Your task to perform on an android device: check storage Image 0: 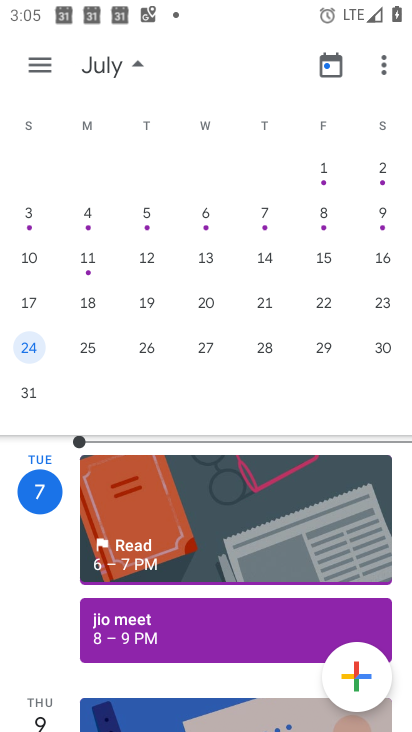
Step 0: press home button
Your task to perform on an android device: check storage Image 1: 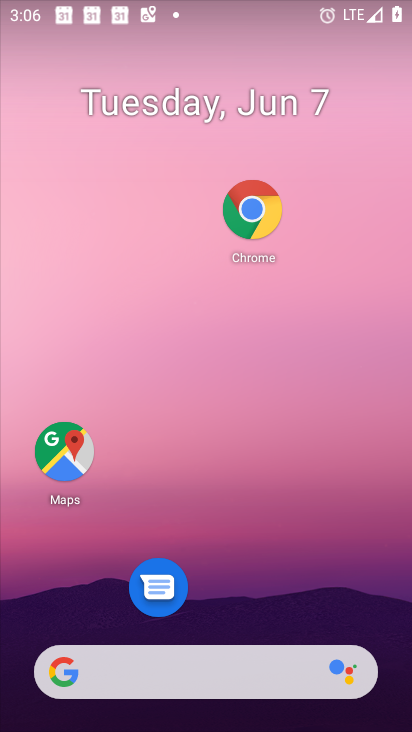
Step 1: drag from (180, 578) to (243, 22)
Your task to perform on an android device: check storage Image 2: 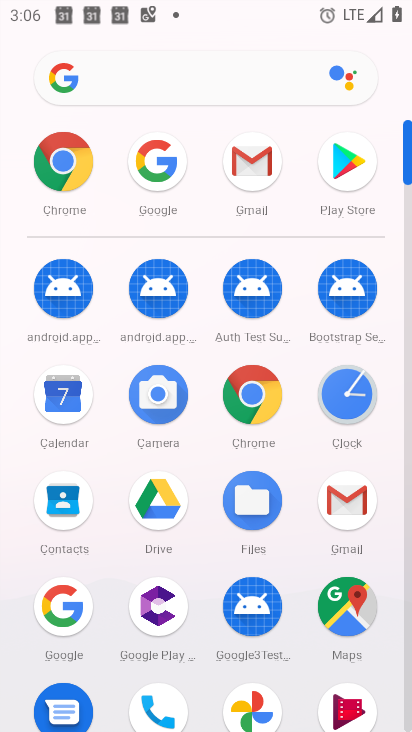
Step 2: drag from (198, 404) to (245, 15)
Your task to perform on an android device: check storage Image 3: 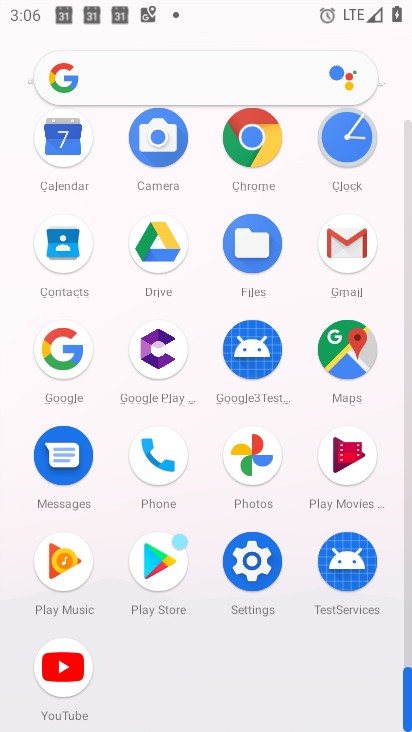
Step 3: click (266, 569)
Your task to perform on an android device: check storage Image 4: 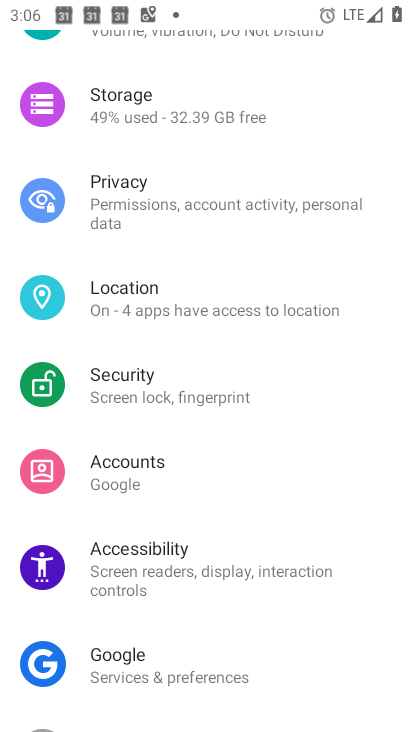
Step 4: click (204, 125)
Your task to perform on an android device: check storage Image 5: 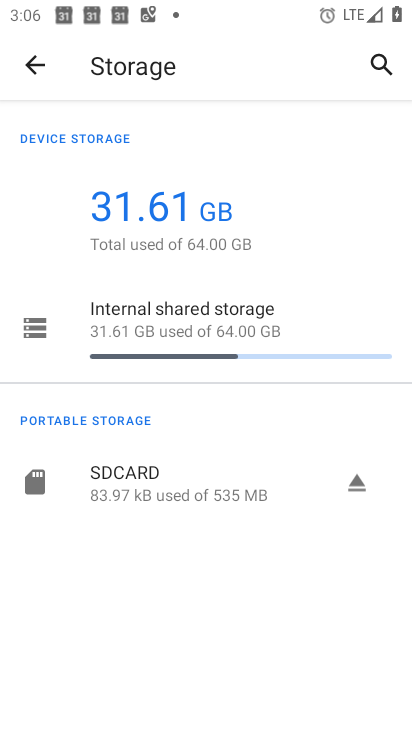
Step 5: click (216, 337)
Your task to perform on an android device: check storage Image 6: 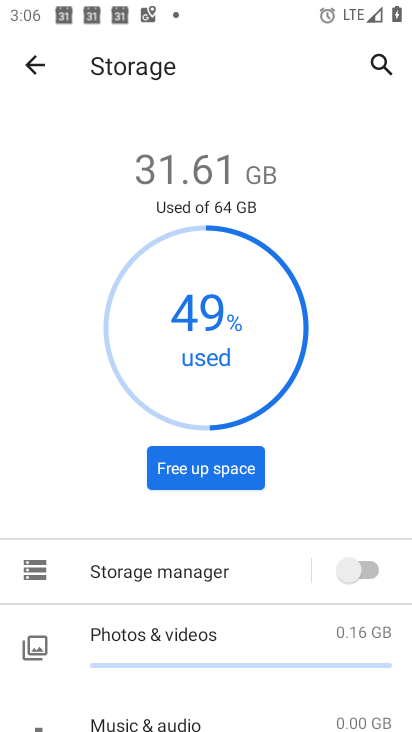
Step 6: task complete